Your task to perform on an android device: set an alarm Image 0: 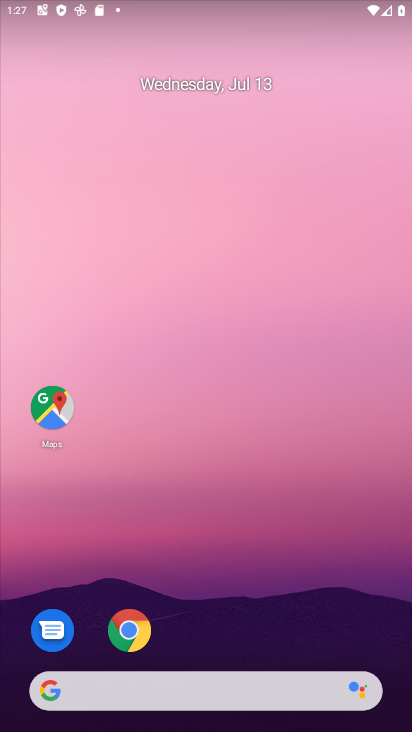
Step 0: drag from (359, 657) to (276, 65)
Your task to perform on an android device: set an alarm Image 1: 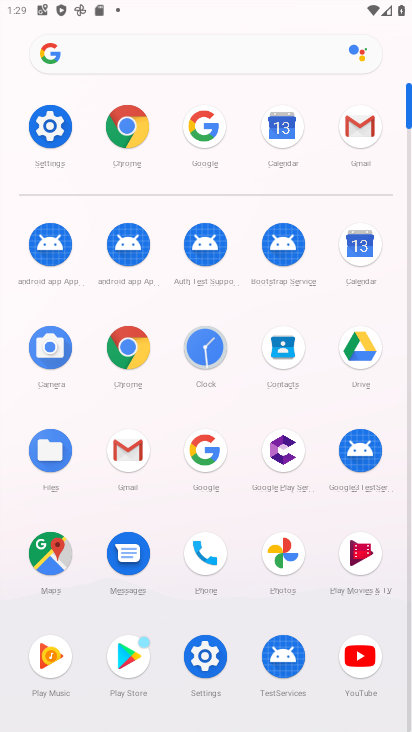
Step 1: click (208, 341)
Your task to perform on an android device: set an alarm Image 2: 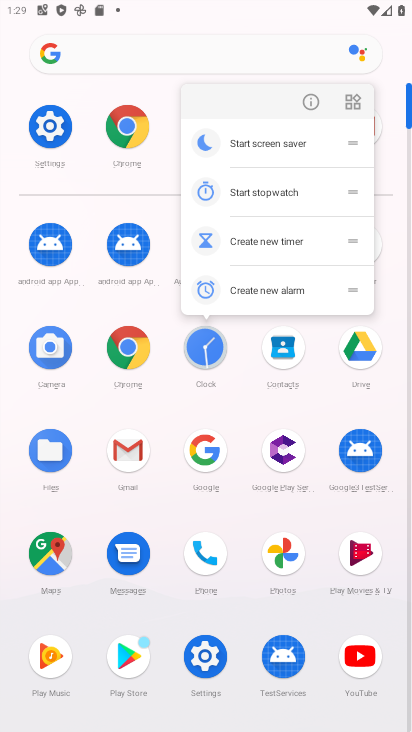
Step 2: click (208, 341)
Your task to perform on an android device: set an alarm Image 3: 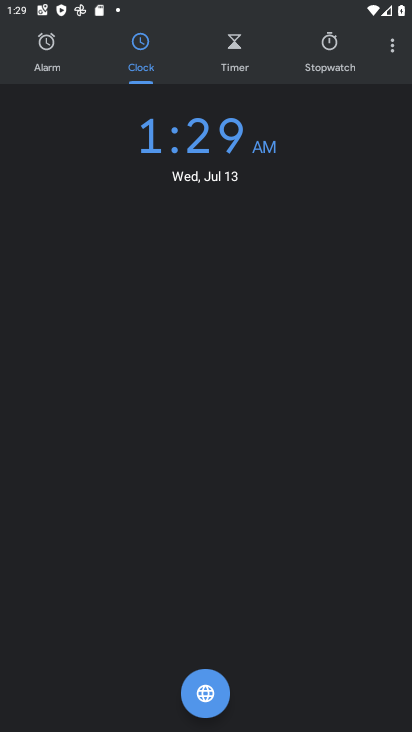
Step 3: click (44, 44)
Your task to perform on an android device: set an alarm Image 4: 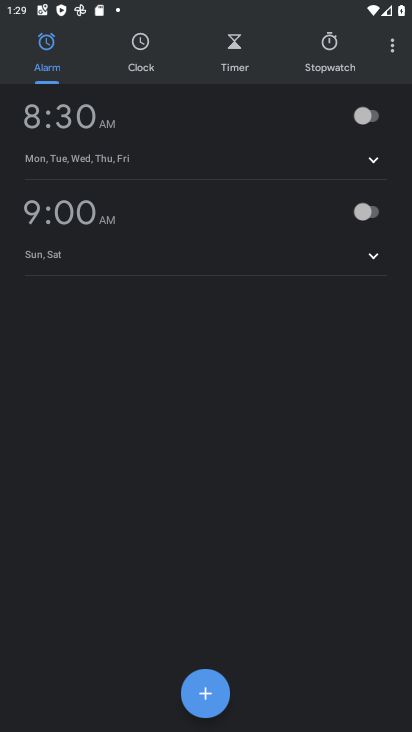
Step 4: click (361, 118)
Your task to perform on an android device: set an alarm Image 5: 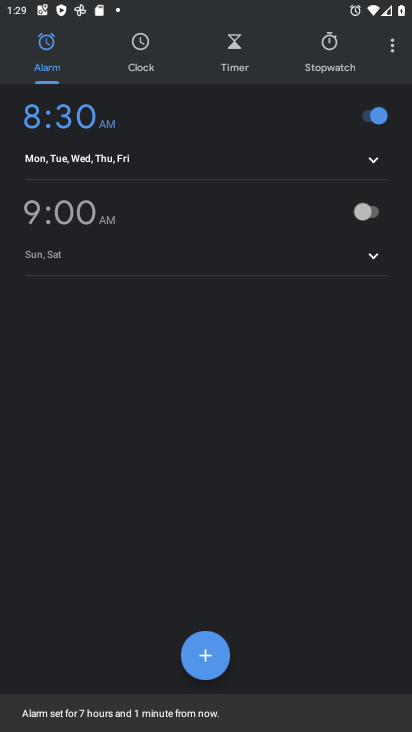
Step 5: task complete